Your task to perform on an android device: What's on my calendar tomorrow? Image 0: 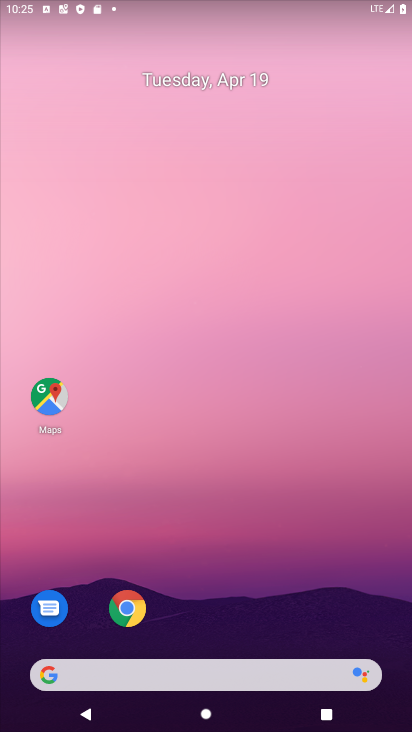
Step 0: drag from (351, 618) to (295, 98)
Your task to perform on an android device: What's on my calendar tomorrow? Image 1: 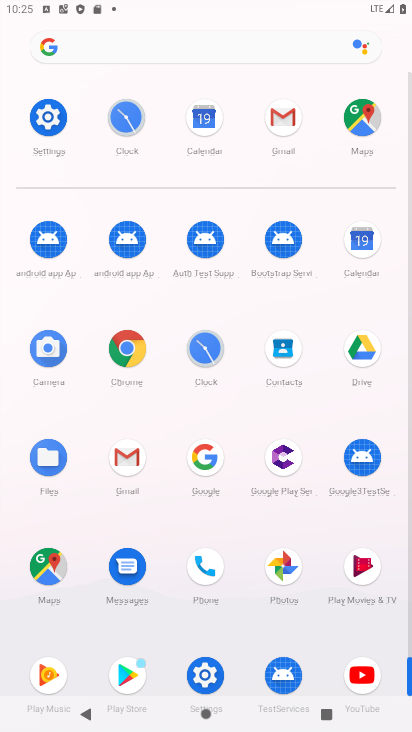
Step 1: click (359, 239)
Your task to perform on an android device: What's on my calendar tomorrow? Image 2: 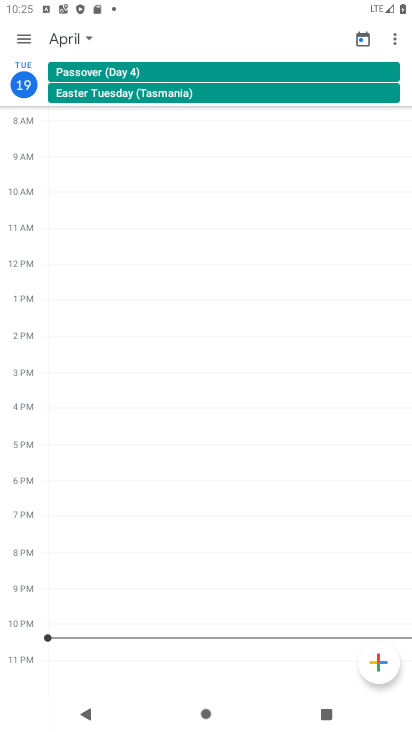
Step 2: click (20, 35)
Your task to perform on an android device: What's on my calendar tomorrow? Image 3: 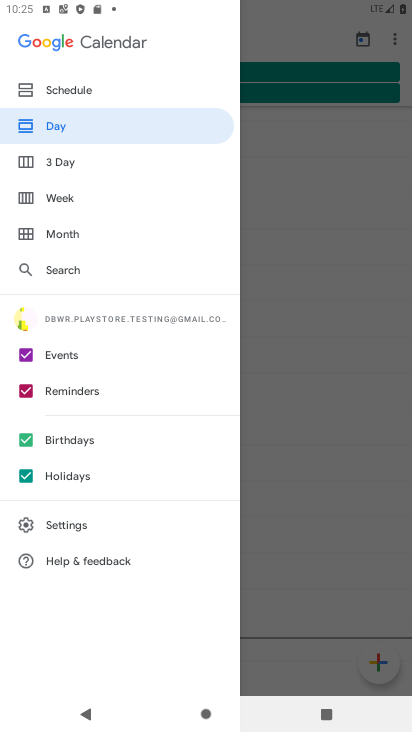
Step 3: click (310, 300)
Your task to perform on an android device: What's on my calendar tomorrow? Image 4: 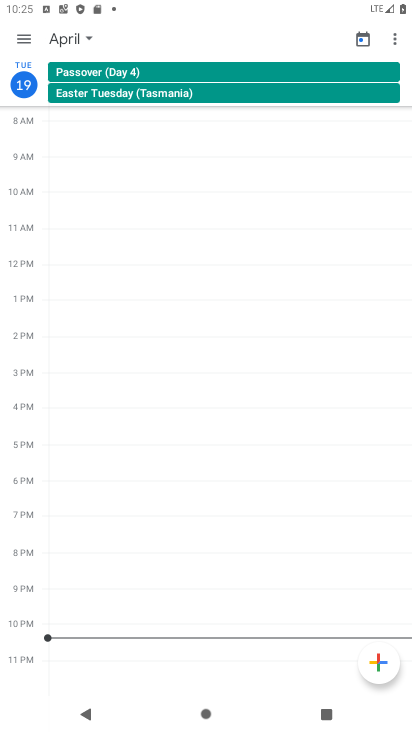
Step 4: click (20, 37)
Your task to perform on an android device: What's on my calendar tomorrow? Image 5: 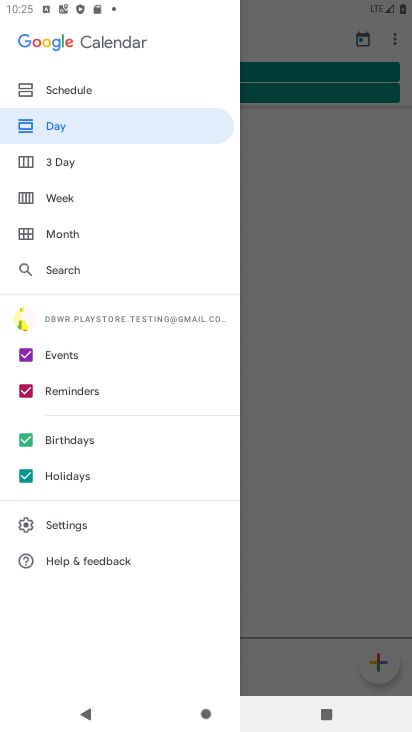
Step 5: click (56, 83)
Your task to perform on an android device: What's on my calendar tomorrow? Image 6: 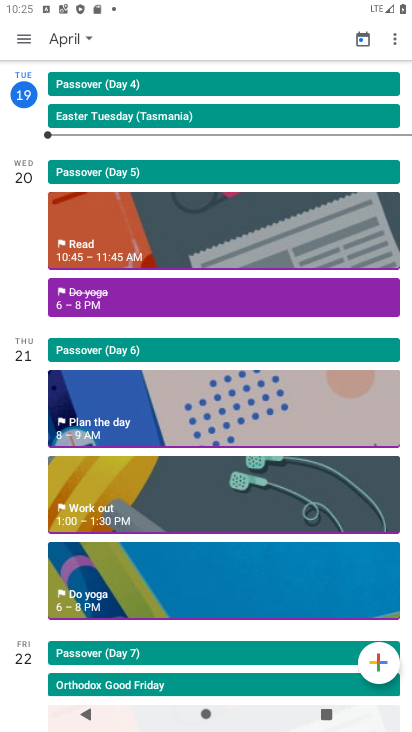
Step 6: click (88, 38)
Your task to perform on an android device: What's on my calendar tomorrow? Image 7: 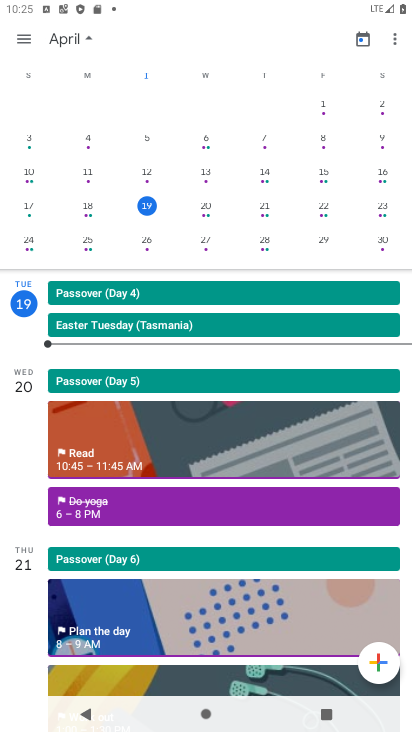
Step 7: click (206, 205)
Your task to perform on an android device: What's on my calendar tomorrow? Image 8: 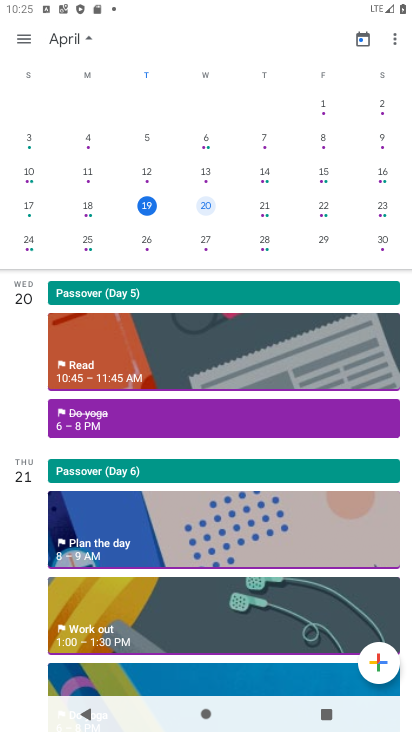
Step 8: click (14, 29)
Your task to perform on an android device: What's on my calendar tomorrow? Image 9: 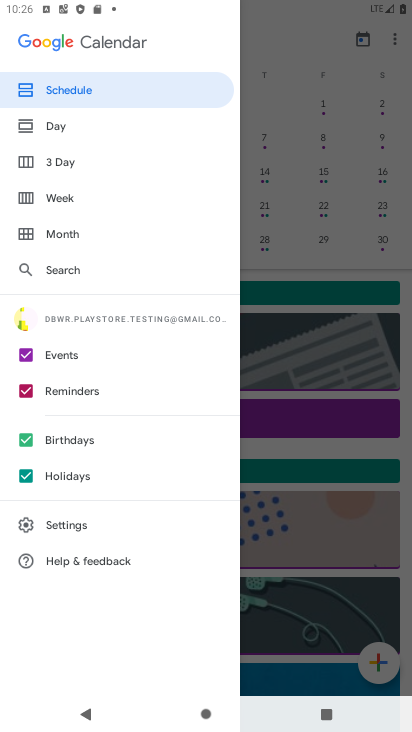
Step 9: click (60, 123)
Your task to perform on an android device: What's on my calendar tomorrow? Image 10: 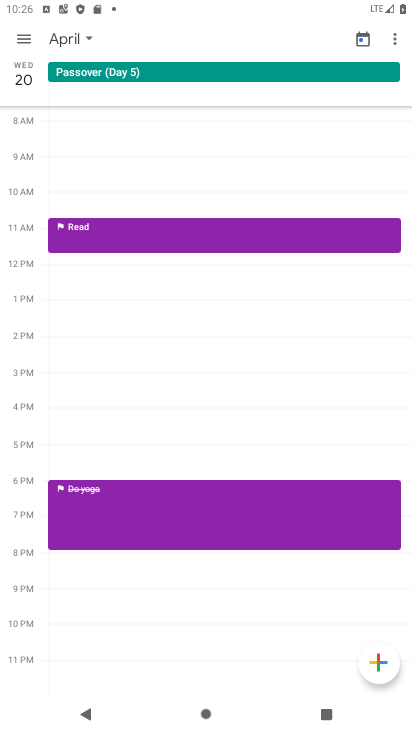
Step 10: task complete